Your task to perform on an android device: Open sound settings Image 0: 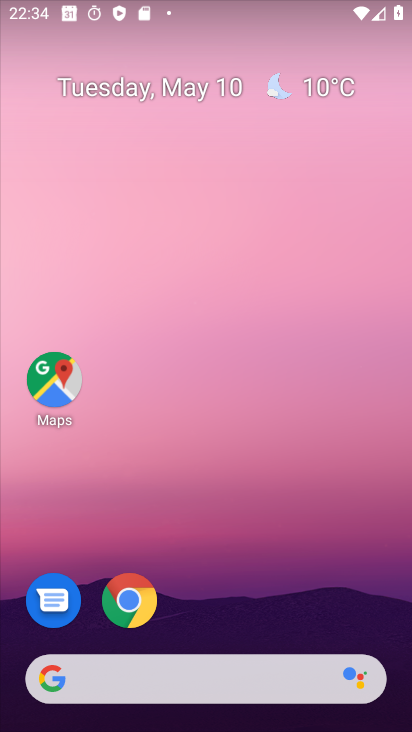
Step 0: drag from (264, 563) to (307, 118)
Your task to perform on an android device: Open sound settings Image 1: 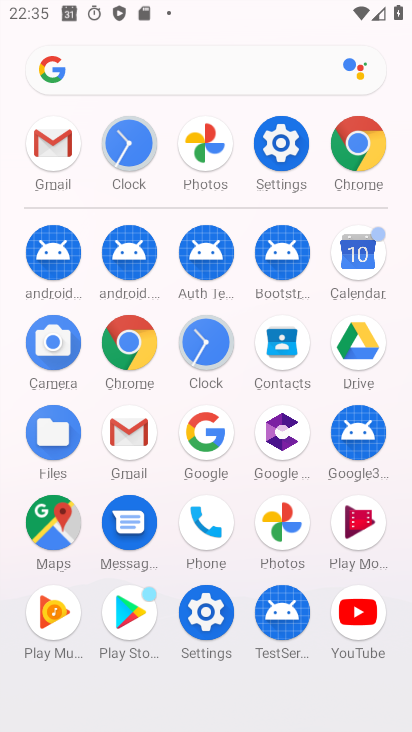
Step 1: click (266, 153)
Your task to perform on an android device: Open sound settings Image 2: 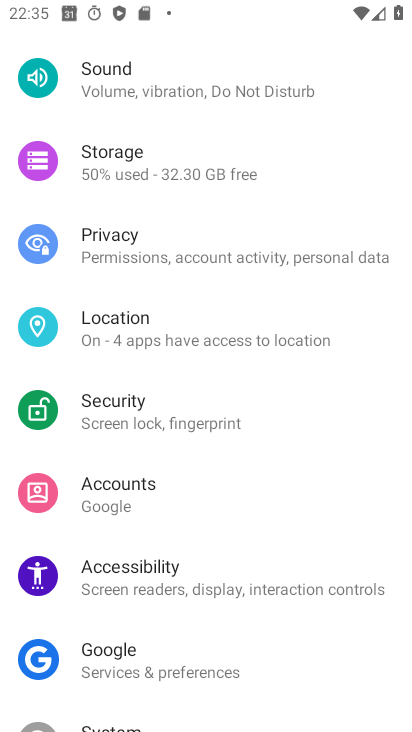
Step 2: click (94, 89)
Your task to perform on an android device: Open sound settings Image 3: 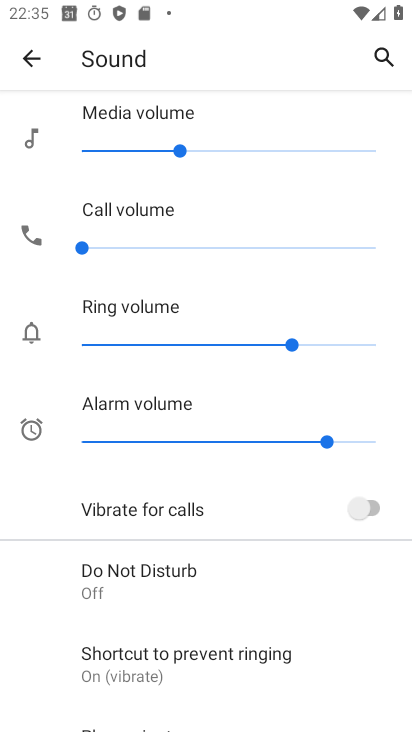
Step 3: task complete